Your task to perform on an android device: create a new album in the google photos Image 0: 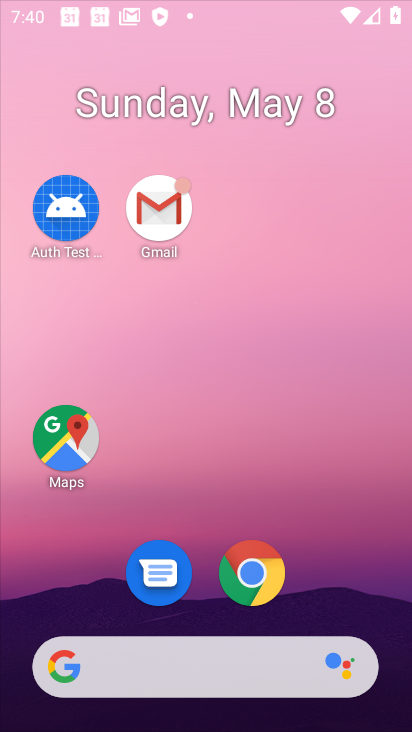
Step 0: drag from (367, 663) to (205, 218)
Your task to perform on an android device: create a new album in the google photos Image 1: 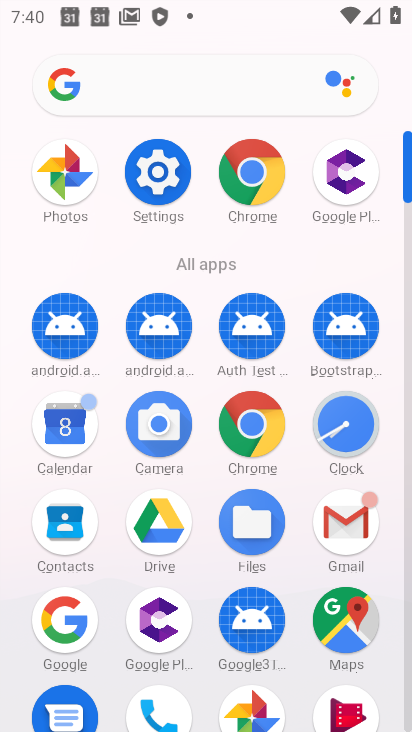
Step 1: click (74, 182)
Your task to perform on an android device: create a new album in the google photos Image 2: 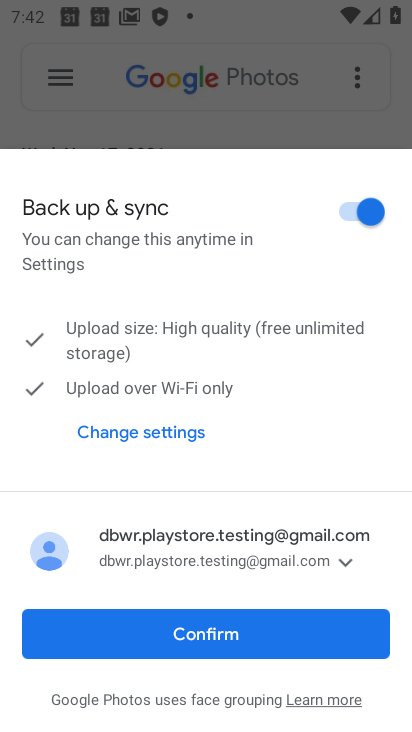
Step 2: click (241, 630)
Your task to perform on an android device: create a new album in the google photos Image 3: 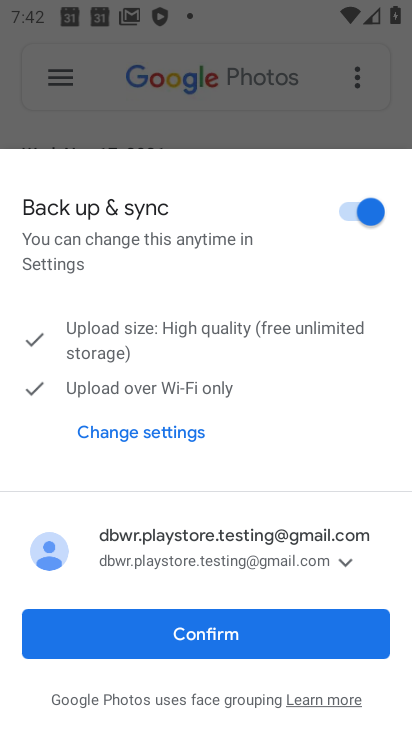
Step 3: click (241, 631)
Your task to perform on an android device: create a new album in the google photos Image 4: 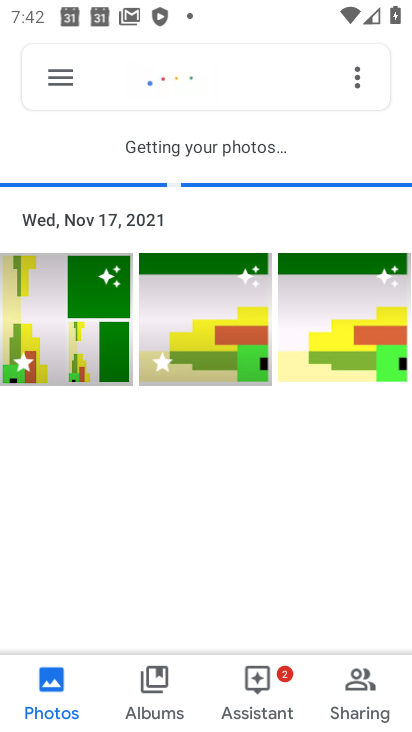
Step 4: click (147, 682)
Your task to perform on an android device: create a new album in the google photos Image 5: 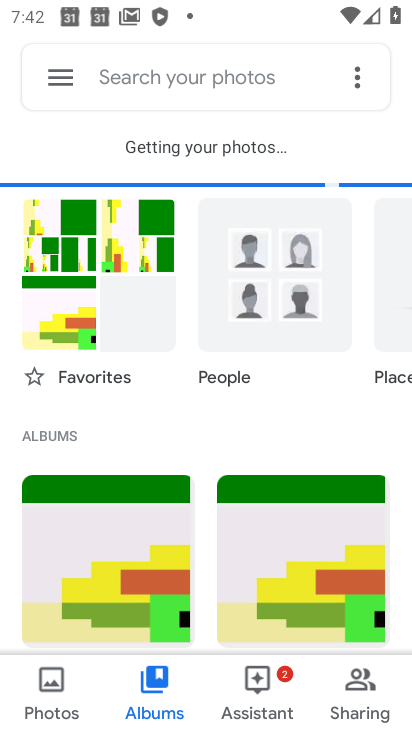
Step 5: drag from (247, 571) to (174, 337)
Your task to perform on an android device: create a new album in the google photos Image 6: 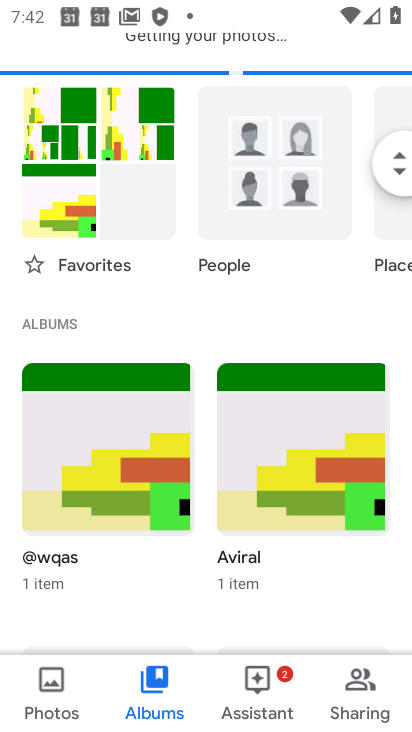
Step 6: drag from (259, 478) to (278, 267)
Your task to perform on an android device: create a new album in the google photos Image 7: 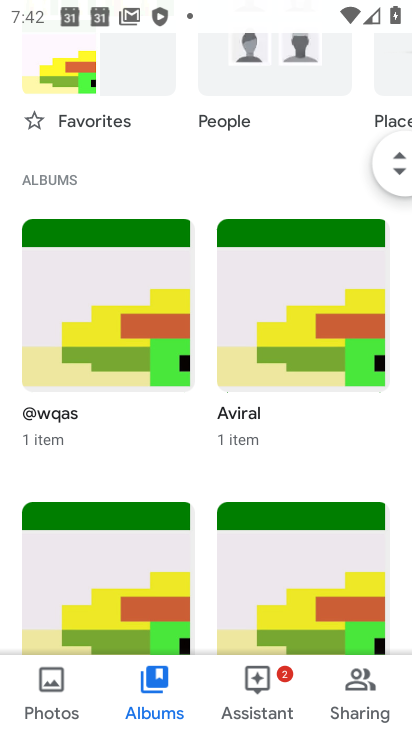
Step 7: drag from (230, 573) to (271, 289)
Your task to perform on an android device: create a new album in the google photos Image 8: 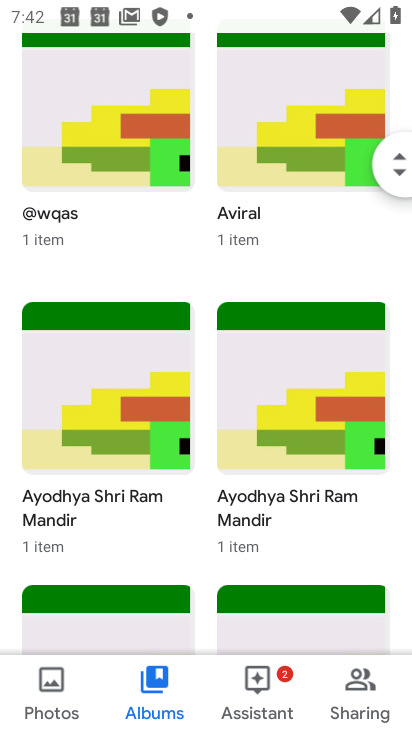
Step 8: click (200, 451)
Your task to perform on an android device: create a new album in the google photos Image 9: 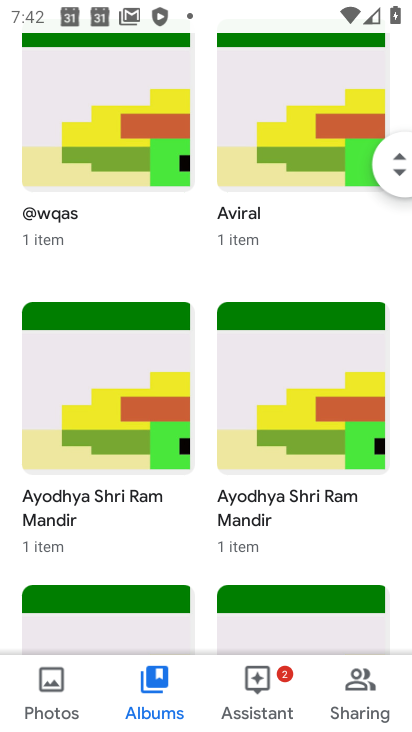
Step 9: drag from (235, 196) to (237, 507)
Your task to perform on an android device: create a new album in the google photos Image 10: 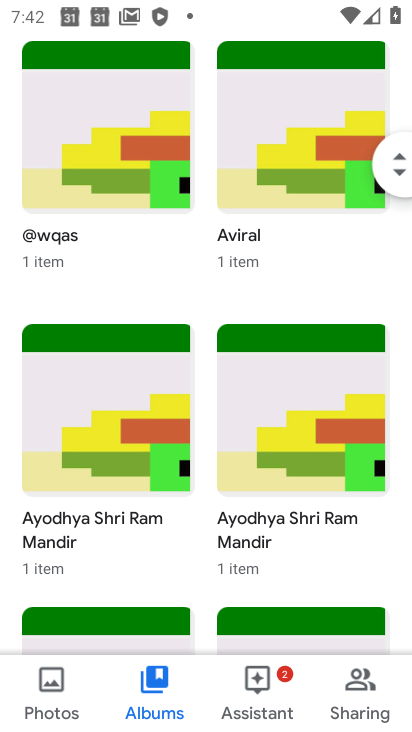
Step 10: drag from (230, 267) to (199, 568)
Your task to perform on an android device: create a new album in the google photos Image 11: 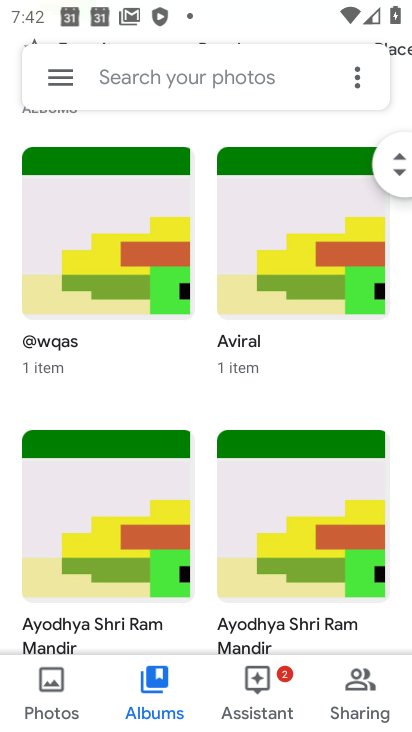
Step 11: drag from (172, 307) to (196, 660)
Your task to perform on an android device: create a new album in the google photos Image 12: 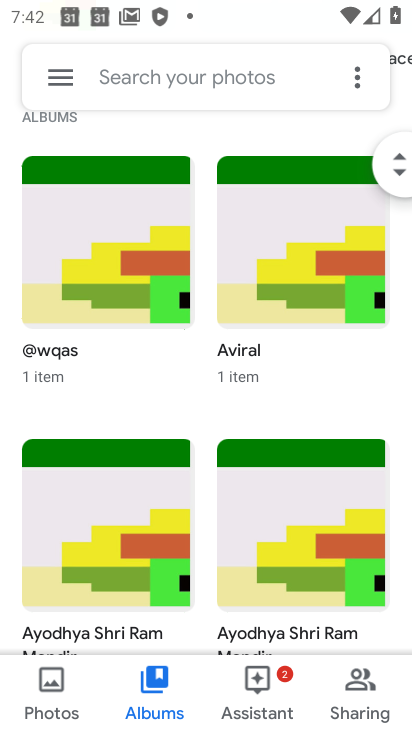
Step 12: click (352, 81)
Your task to perform on an android device: create a new album in the google photos Image 13: 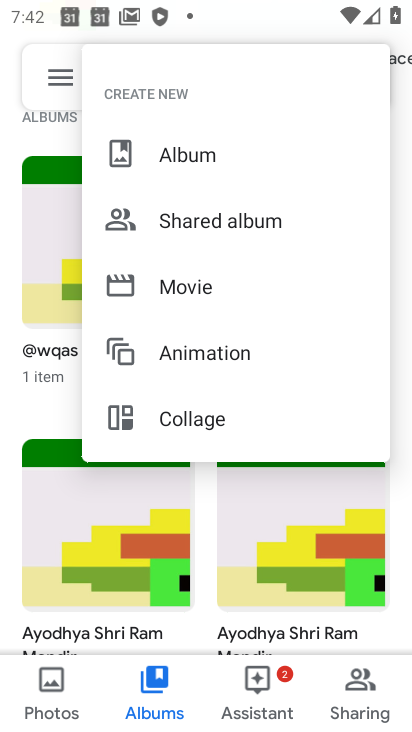
Step 13: click (170, 152)
Your task to perform on an android device: create a new album in the google photos Image 14: 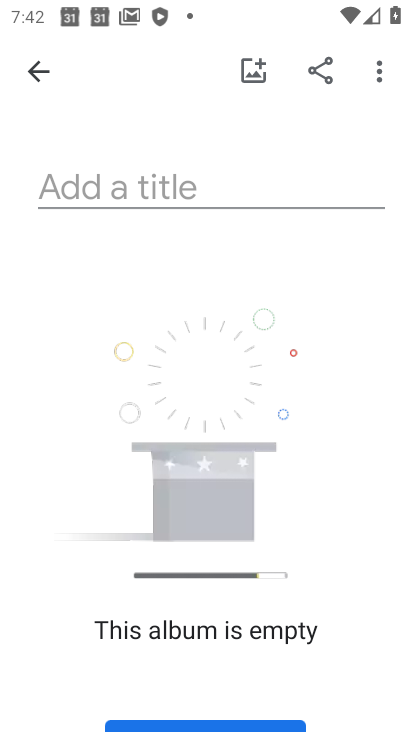
Step 14: click (104, 192)
Your task to perform on an android device: create a new album in the google photos Image 15: 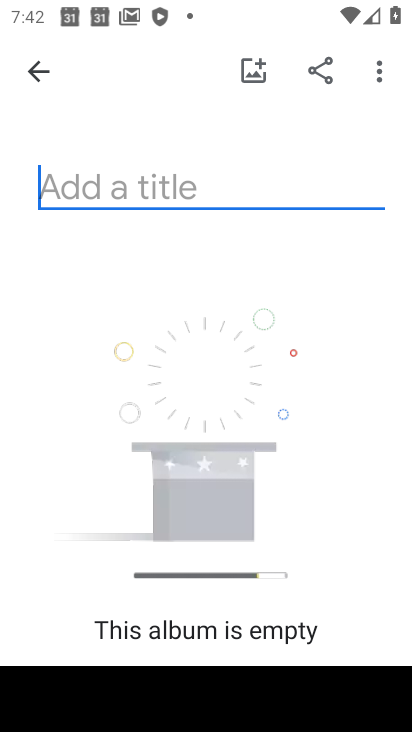
Step 15: type "man"
Your task to perform on an android device: create a new album in the google photos Image 16: 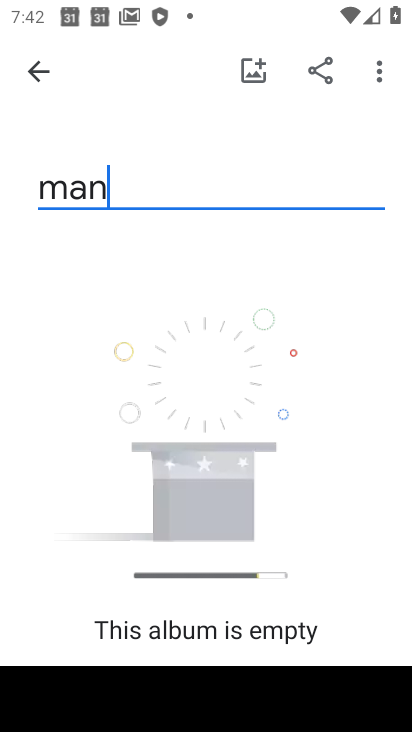
Step 16: click (216, 501)
Your task to perform on an android device: create a new album in the google photos Image 17: 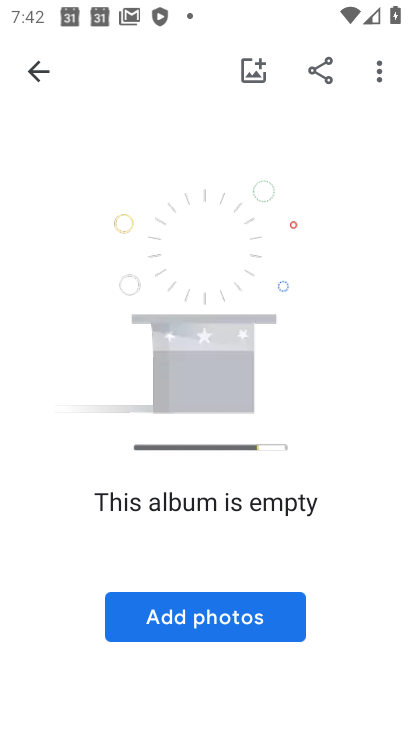
Step 17: click (216, 500)
Your task to perform on an android device: create a new album in the google photos Image 18: 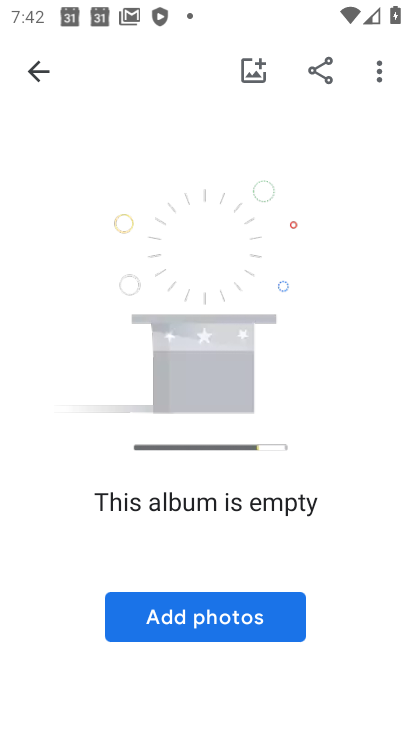
Step 18: click (196, 622)
Your task to perform on an android device: create a new album in the google photos Image 19: 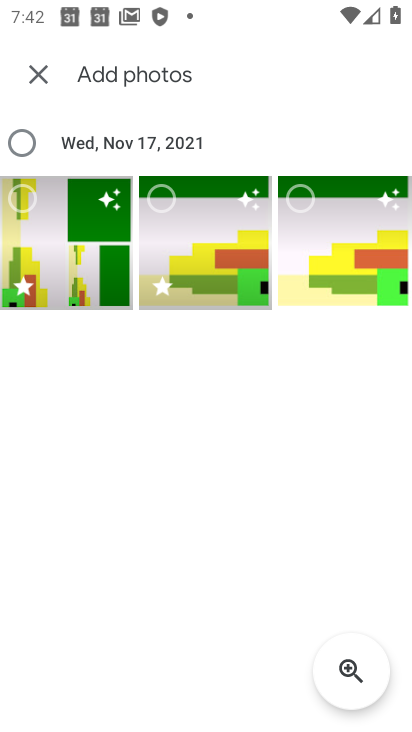
Step 19: click (23, 197)
Your task to perform on an android device: create a new album in the google photos Image 20: 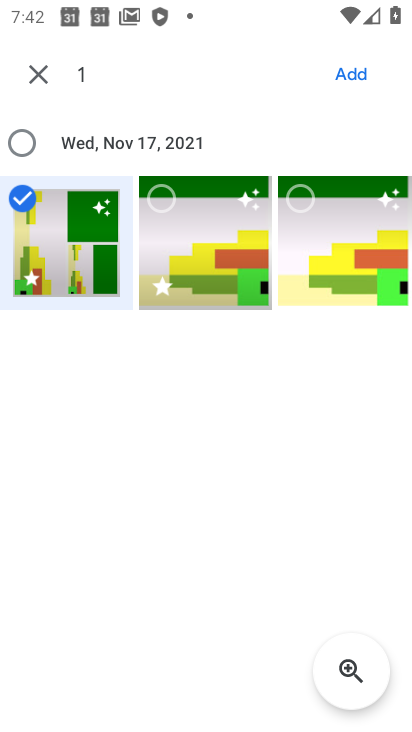
Step 20: click (159, 199)
Your task to perform on an android device: create a new album in the google photos Image 21: 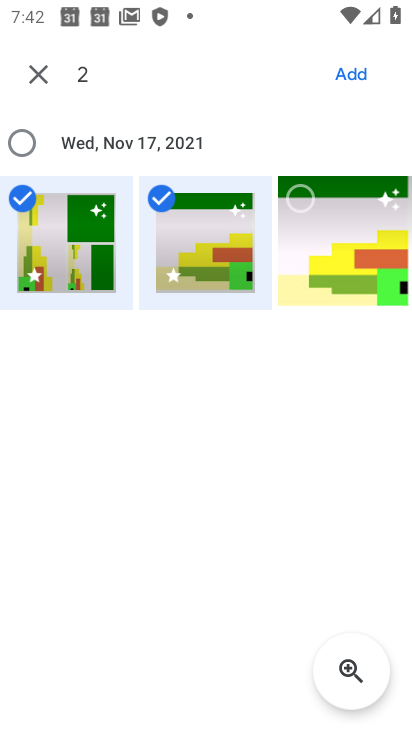
Step 21: click (307, 207)
Your task to perform on an android device: create a new album in the google photos Image 22: 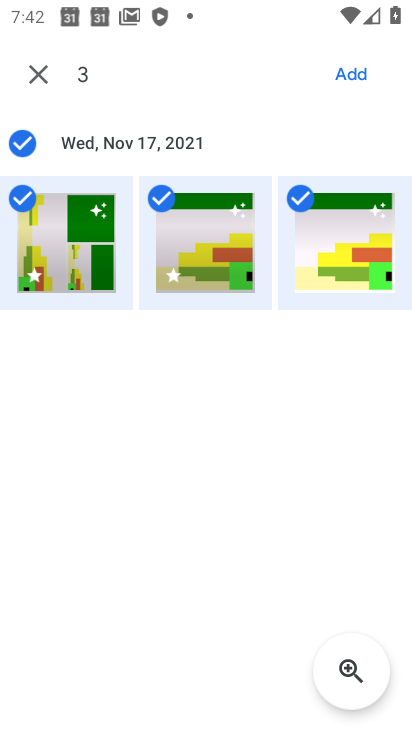
Step 22: click (342, 71)
Your task to perform on an android device: create a new album in the google photos Image 23: 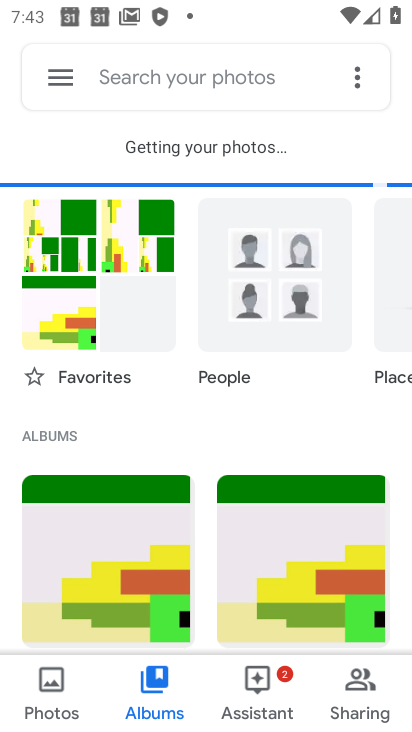
Step 23: task complete